Your task to perform on an android device: Open CNN.com Image 0: 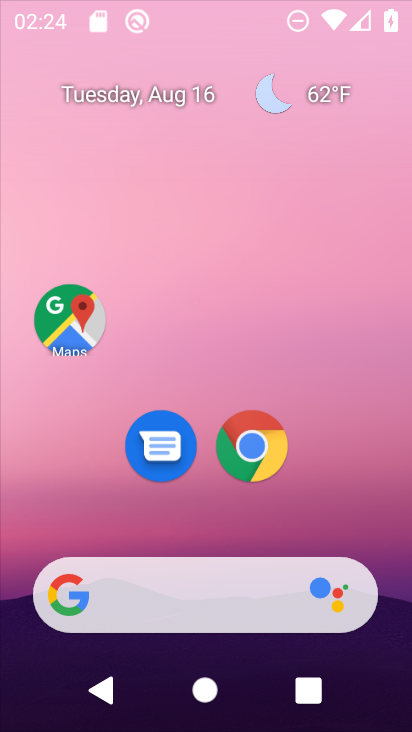
Step 0: press home button
Your task to perform on an android device: Open CNN.com Image 1: 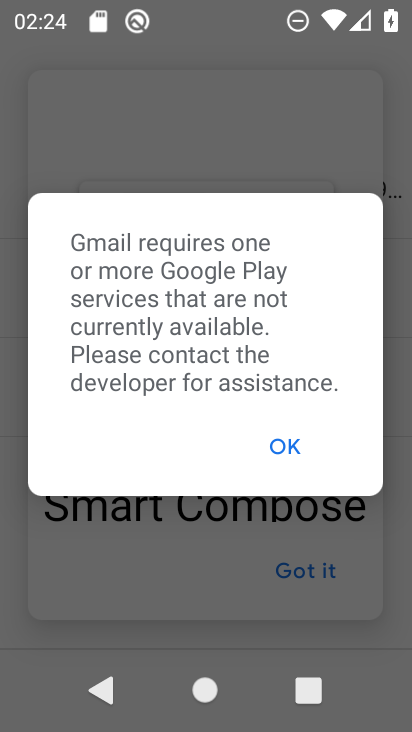
Step 1: drag from (192, 373) to (228, 57)
Your task to perform on an android device: Open CNN.com Image 2: 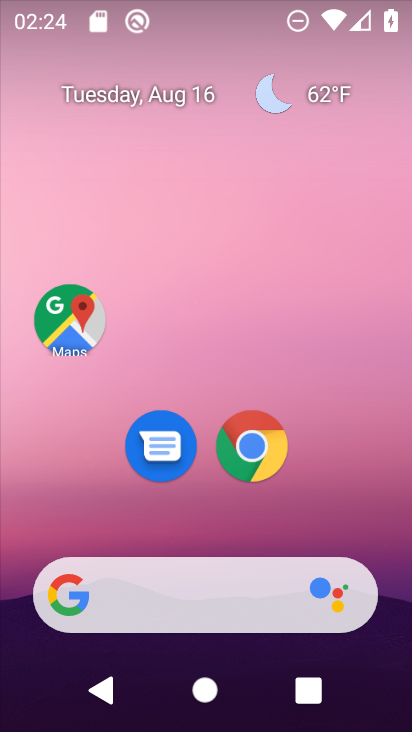
Step 2: click (248, 441)
Your task to perform on an android device: Open CNN.com Image 3: 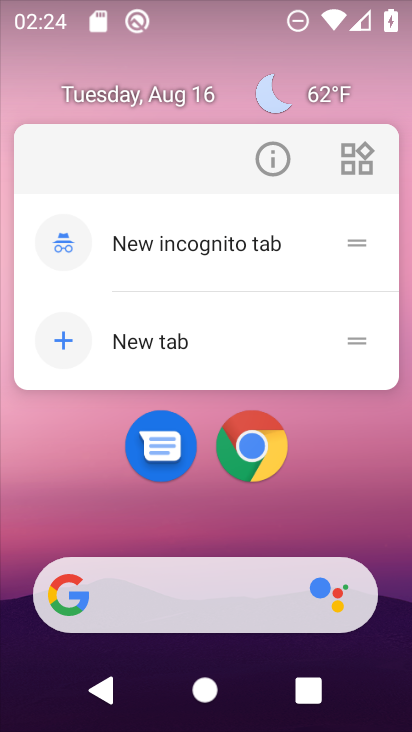
Step 3: click (246, 439)
Your task to perform on an android device: Open CNN.com Image 4: 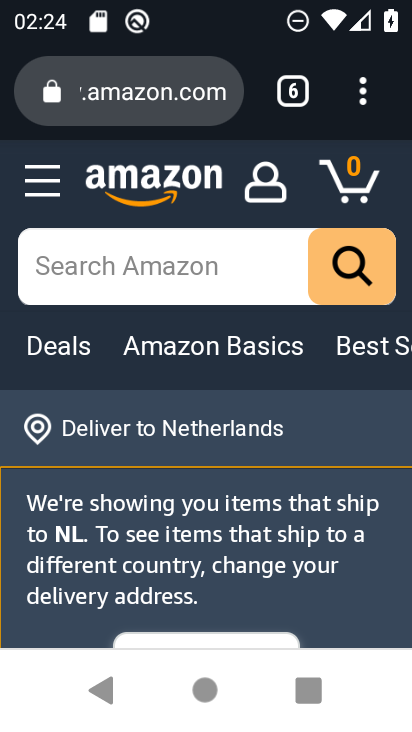
Step 4: click (292, 86)
Your task to perform on an android device: Open CNN.com Image 5: 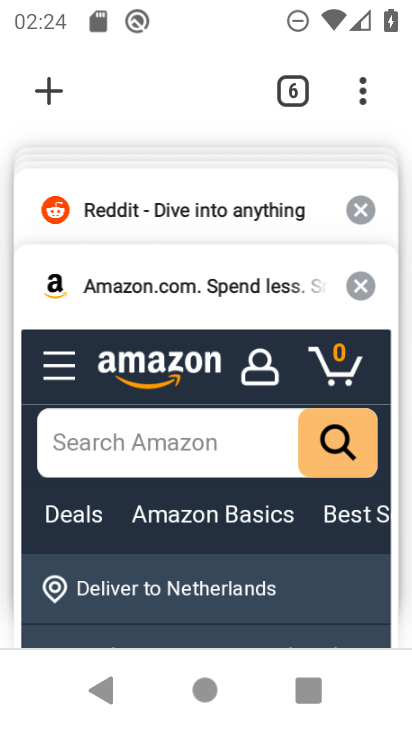
Step 5: drag from (189, 215) to (191, 476)
Your task to perform on an android device: Open CNN.com Image 6: 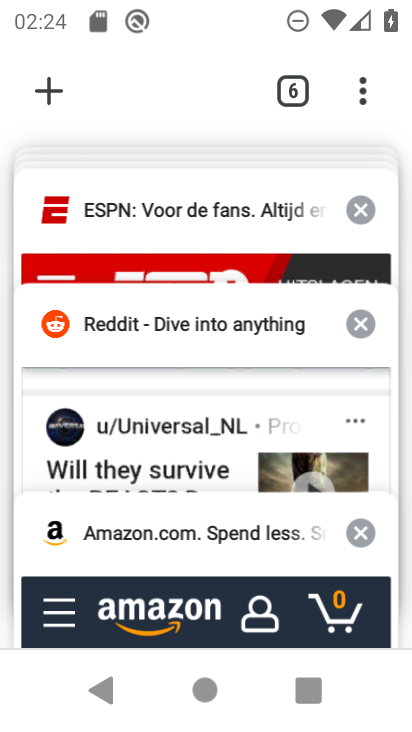
Step 6: drag from (154, 244) to (194, 475)
Your task to perform on an android device: Open CNN.com Image 7: 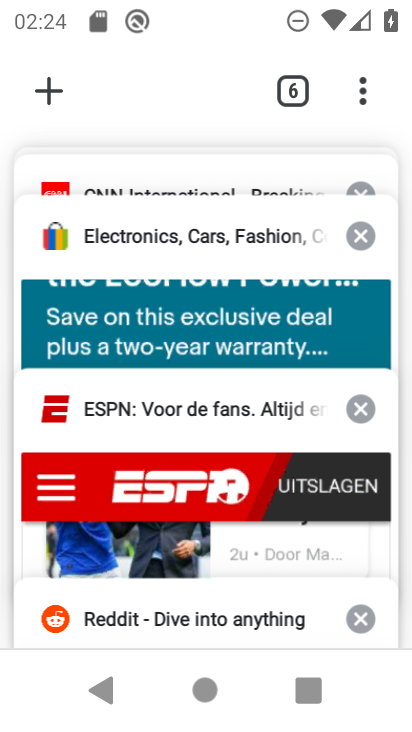
Step 7: drag from (157, 242) to (168, 489)
Your task to perform on an android device: Open CNN.com Image 8: 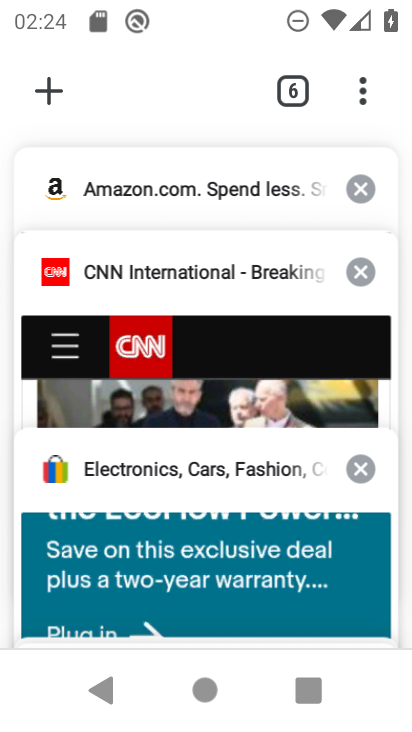
Step 8: click (201, 324)
Your task to perform on an android device: Open CNN.com Image 9: 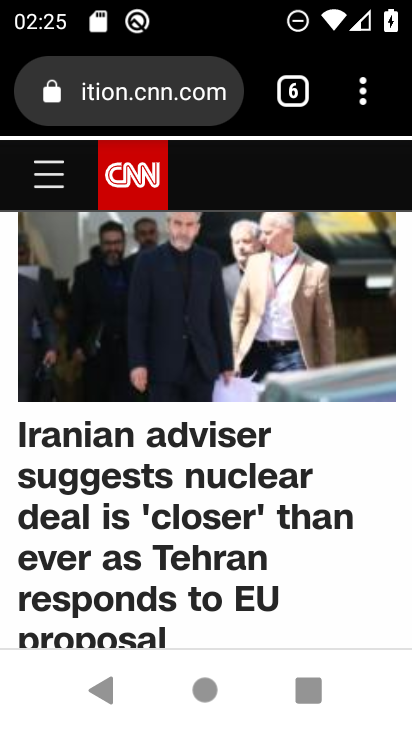
Step 9: task complete